Your task to perform on an android device: Search for the new Nintendo switch on Best Buy Image 0: 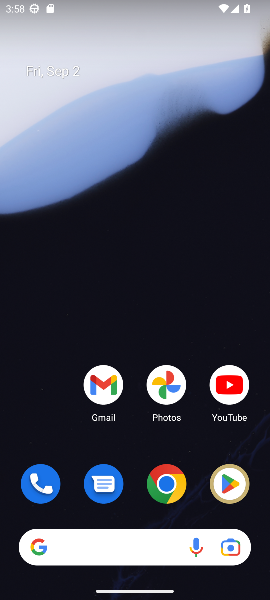
Step 0: click (165, 480)
Your task to perform on an android device: Search for the new Nintendo switch on Best Buy Image 1: 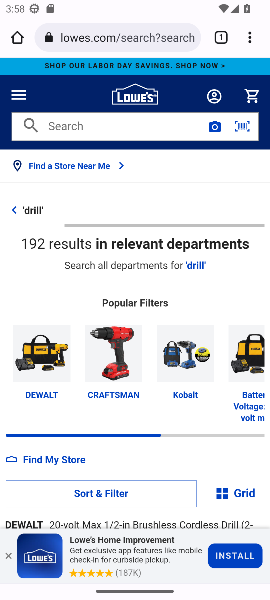
Step 1: click (154, 35)
Your task to perform on an android device: Search for the new Nintendo switch on Best Buy Image 2: 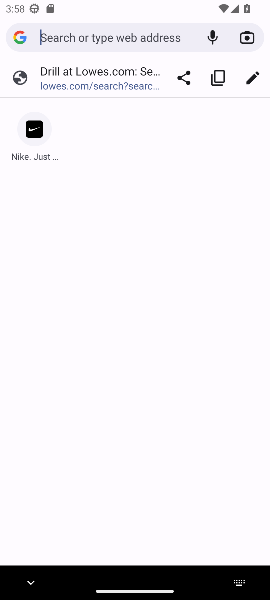
Step 2: type "Best Buy"
Your task to perform on an android device: Search for the new Nintendo switch on Best Buy Image 3: 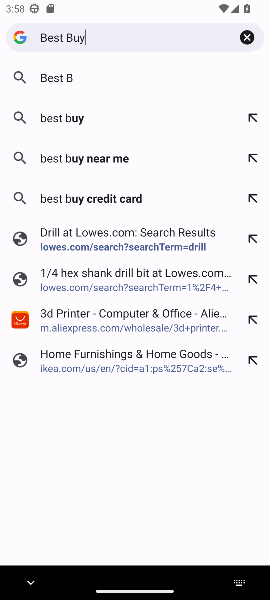
Step 3: press enter
Your task to perform on an android device: Search for the new Nintendo switch on Best Buy Image 4: 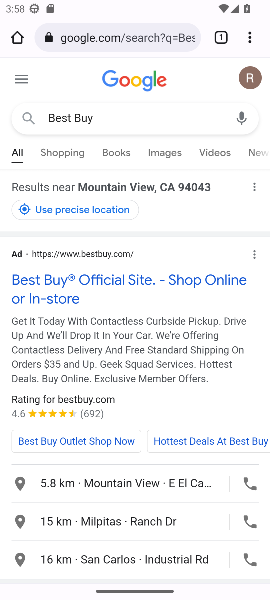
Step 4: click (82, 274)
Your task to perform on an android device: Search for the new Nintendo switch on Best Buy Image 5: 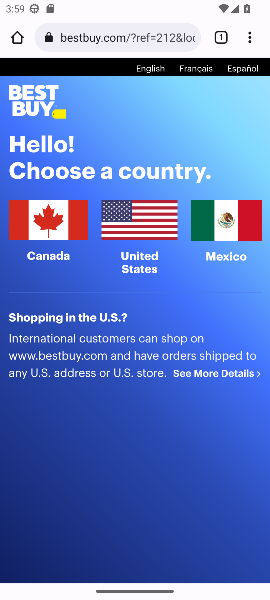
Step 5: click (155, 221)
Your task to perform on an android device: Search for the new Nintendo switch on Best Buy Image 6: 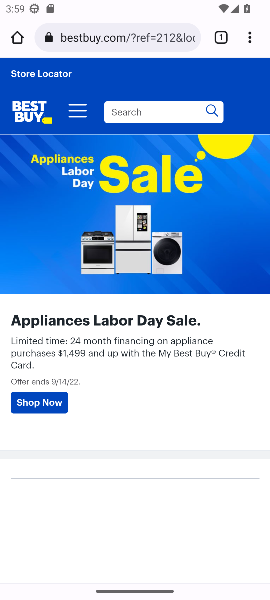
Step 6: click (153, 107)
Your task to perform on an android device: Search for the new Nintendo switch on Best Buy Image 7: 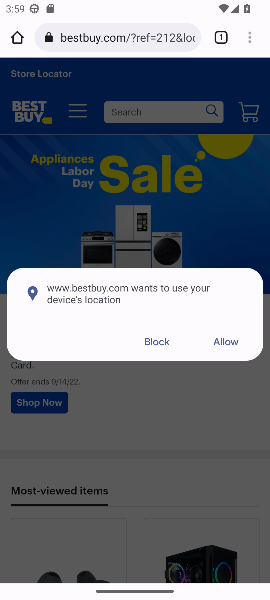
Step 7: click (151, 340)
Your task to perform on an android device: Search for the new Nintendo switch on Best Buy Image 8: 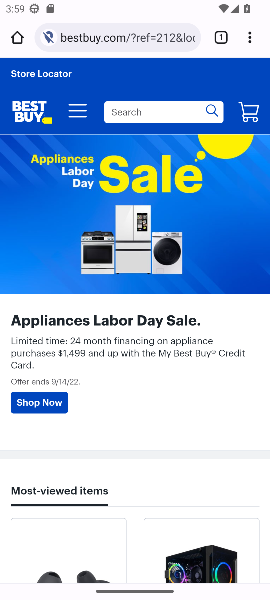
Step 8: click (160, 112)
Your task to perform on an android device: Search for the new Nintendo switch on Best Buy Image 9: 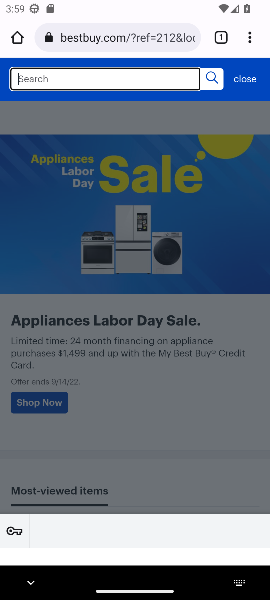
Step 9: type "Nintendo switch"
Your task to perform on an android device: Search for the new Nintendo switch on Best Buy Image 10: 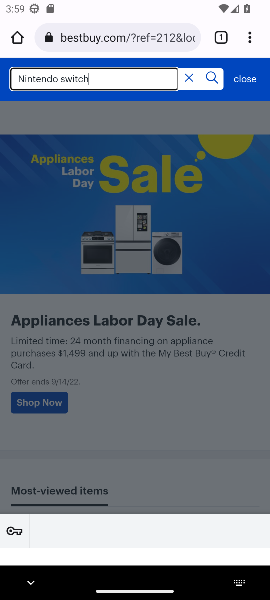
Step 10: press enter
Your task to perform on an android device: Search for the new Nintendo switch on Best Buy Image 11: 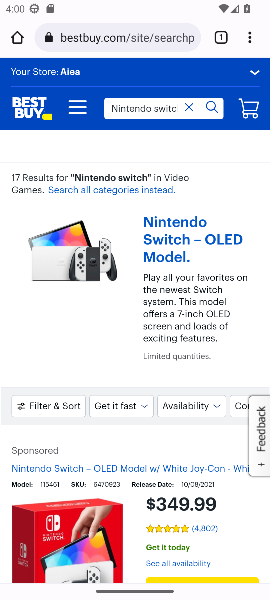
Step 11: task complete